Your task to perform on an android device: turn off notifications settings in the gmail app Image 0: 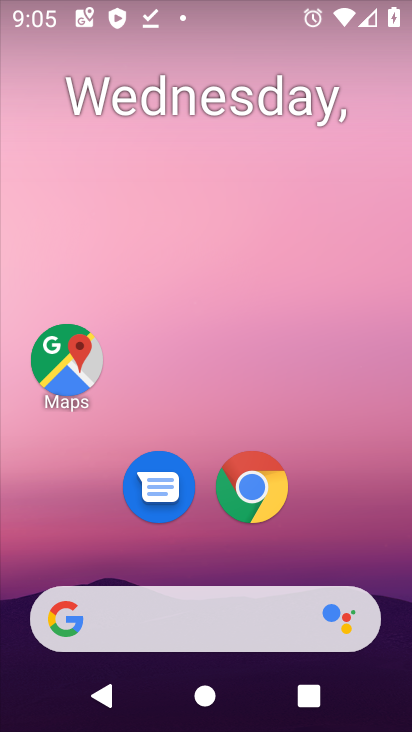
Step 0: drag from (253, 658) to (167, 512)
Your task to perform on an android device: turn off notifications settings in the gmail app Image 1: 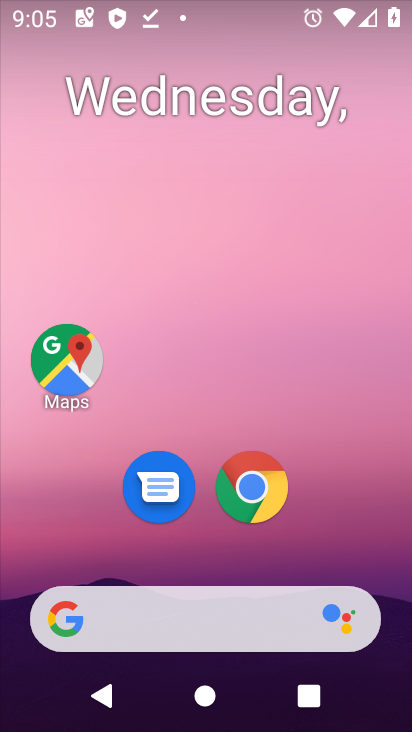
Step 1: drag from (274, 655) to (196, 251)
Your task to perform on an android device: turn off notifications settings in the gmail app Image 2: 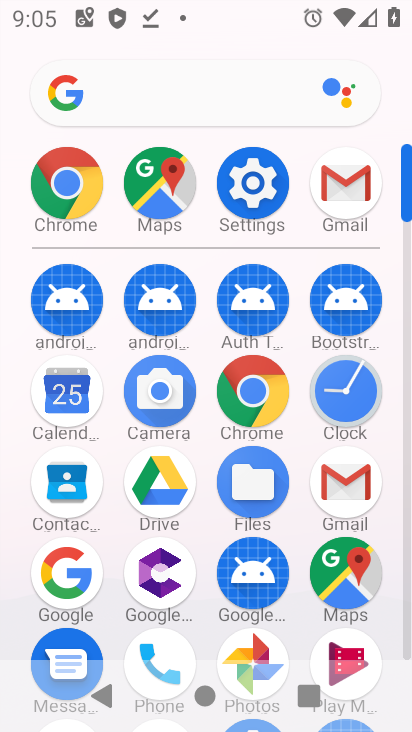
Step 2: drag from (349, 548) to (146, 116)
Your task to perform on an android device: turn off notifications settings in the gmail app Image 3: 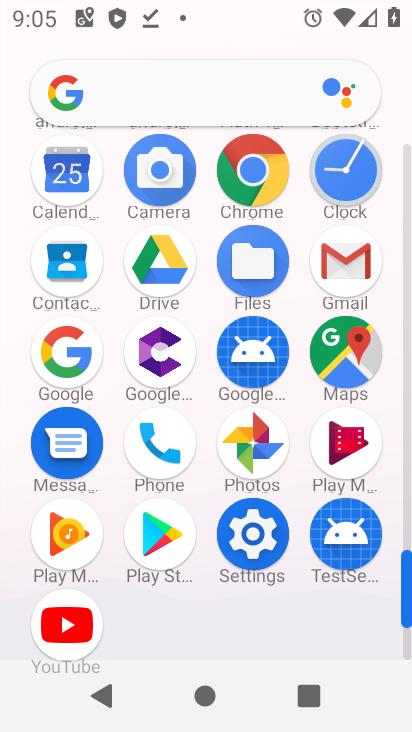
Step 3: click (352, 464)
Your task to perform on an android device: turn off notifications settings in the gmail app Image 4: 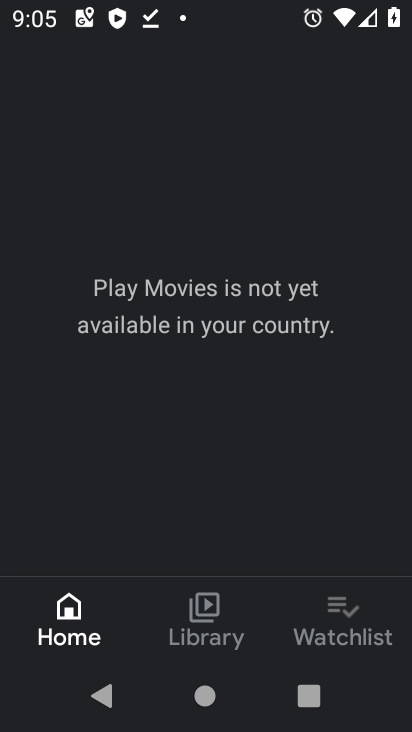
Step 4: press back button
Your task to perform on an android device: turn off notifications settings in the gmail app Image 5: 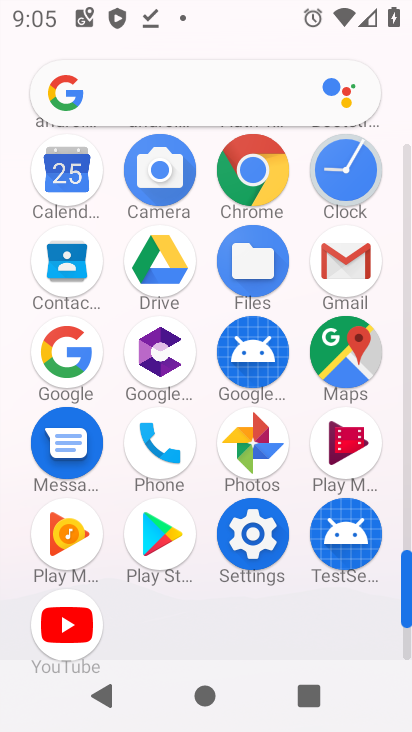
Step 5: click (339, 254)
Your task to perform on an android device: turn off notifications settings in the gmail app Image 6: 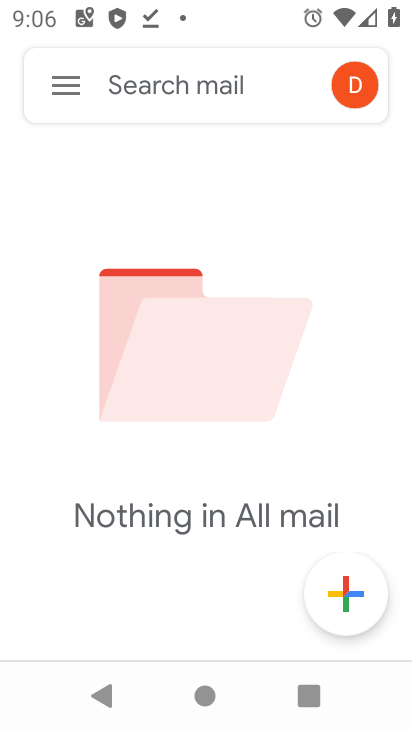
Step 6: click (62, 99)
Your task to perform on an android device: turn off notifications settings in the gmail app Image 7: 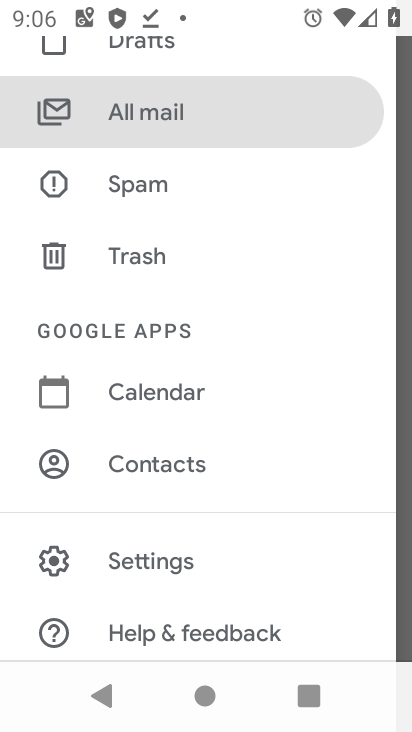
Step 7: click (139, 547)
Your task to perform on an android device: turn off notifications settings in the gmail app Image 8: 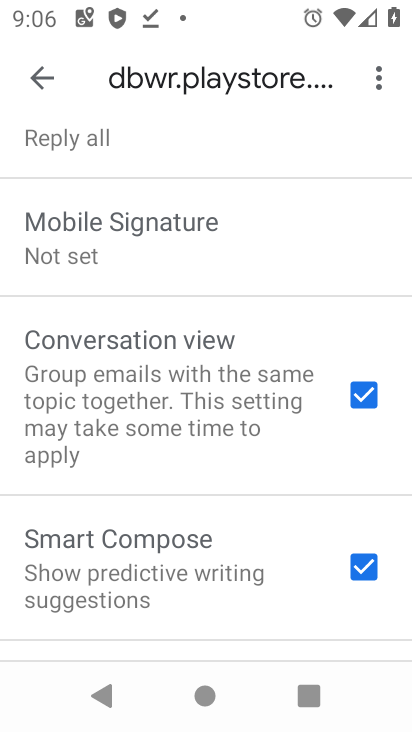
Step 8: drag from (170, 471) to (218, 82)
Your task to perform on an android device: turn off notifications settings in the gmail app Image 9: 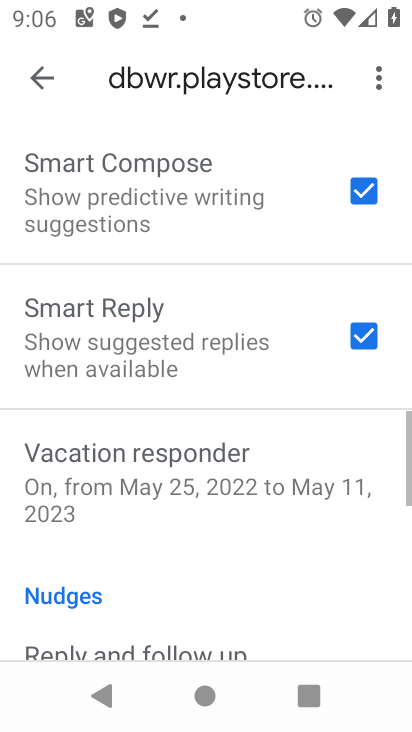
Step 9: drag from (285, 406) to (228, 44)
Your task to perform on an android device: turn off notifications settings in the gmail app Image 10: 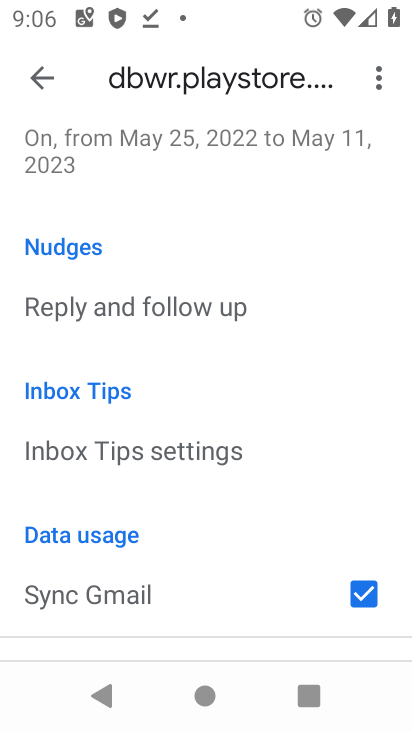
Step 10: drag from (113, 340) to (161, 623)
Your task to perform on an android device: turn off notifications settings in the gmail app Image 11: 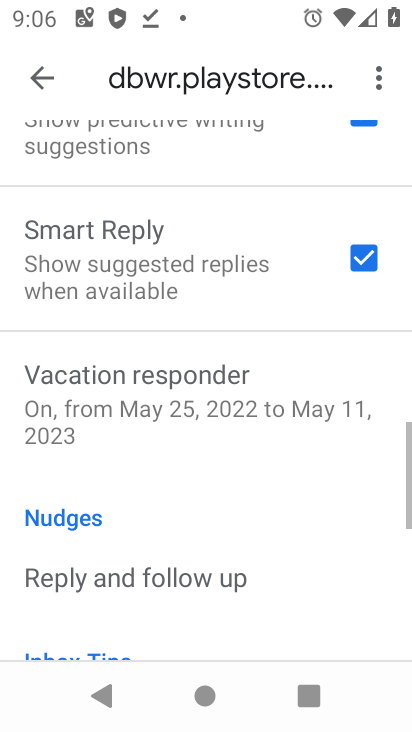
Step 11: drag from (102, 351) to (148, 533)
Your task to perform on an android device: turn off notifications settings in the gmail app Image 12: 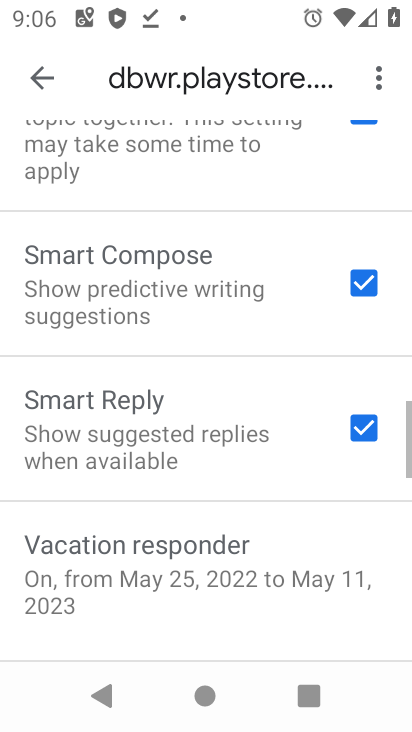
Step 12: drag from (135, 281) to (155, 586)
Your task to perform on an android device: turn off notifications settings in the gmail app Image 13: 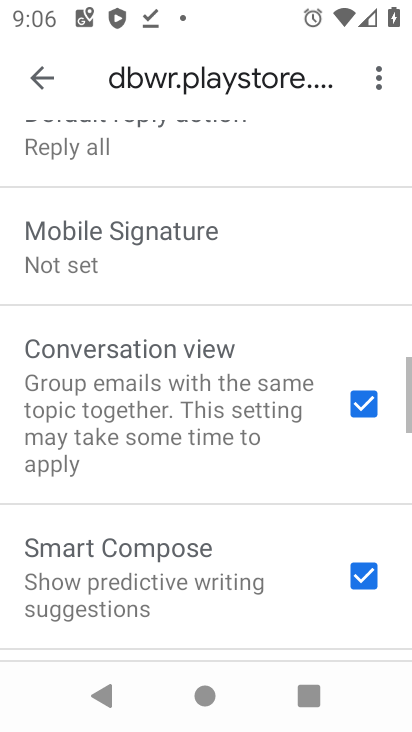
Step 13: drag from (155, 305) to (167, 519)
Your task to perform on an android device: turn off notifications settings in the gmail app Image 14: 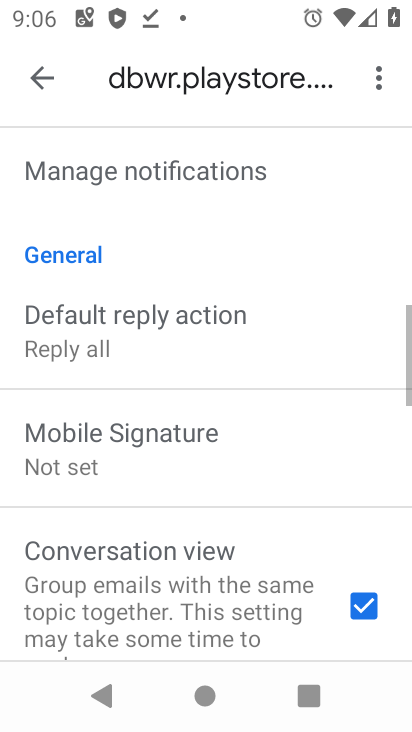
Step 14: drag from (152, 392) to (208, 597)
Your task to perform on an android device: turn off notifications settings in the gmail app Image 15: 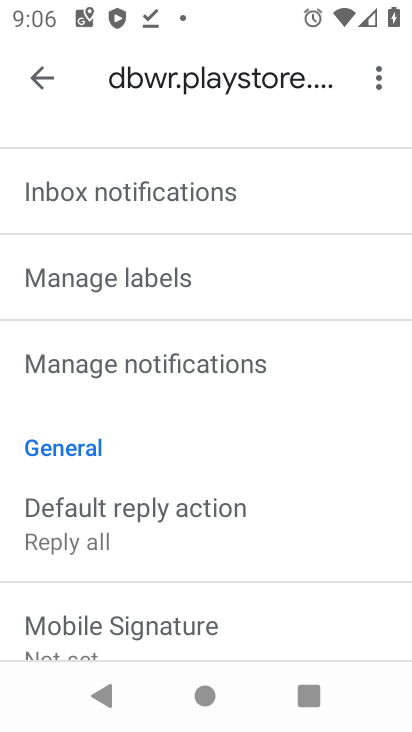
Step 15: drag from (133, 328) to (113, 520)
Your task to perform on an android device: turn off notifications settings in the gmail app Image 16: 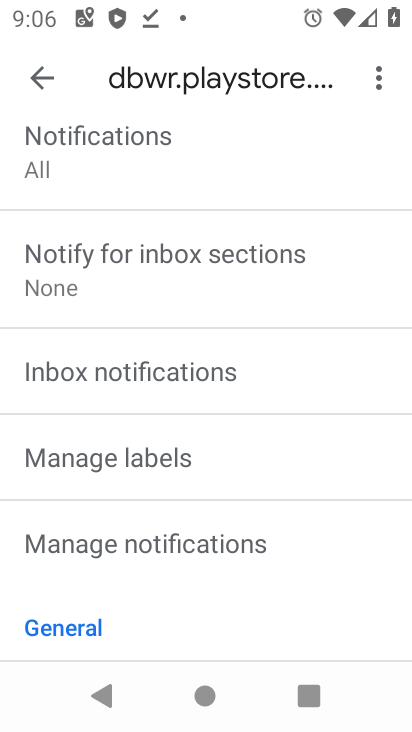
Step 16: click (66, 143)
Your task to perform on an android device: turn off notifications settings in the gmail app Image 17: 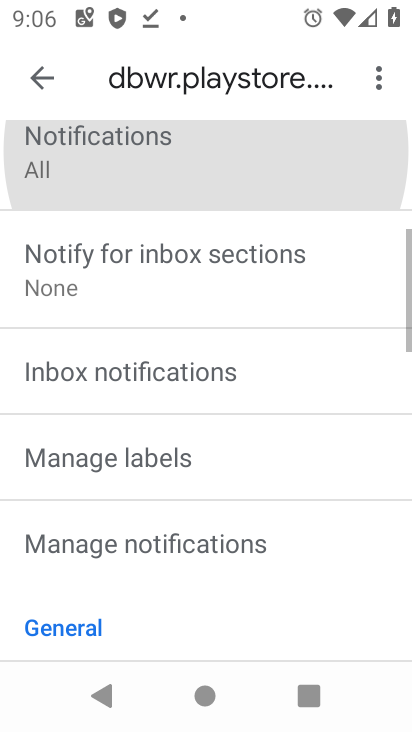
Step 17: click (67, 143)
Your task to perform on an android device: turn off notifications settings in the gmail app Image 18: 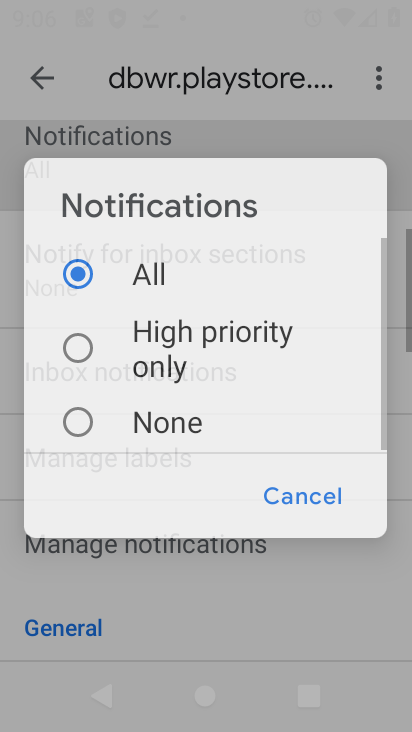
Step 18: click (68, 141)
Your task to perform on an android device: turn off notifications settings in the gmail app Image 19: 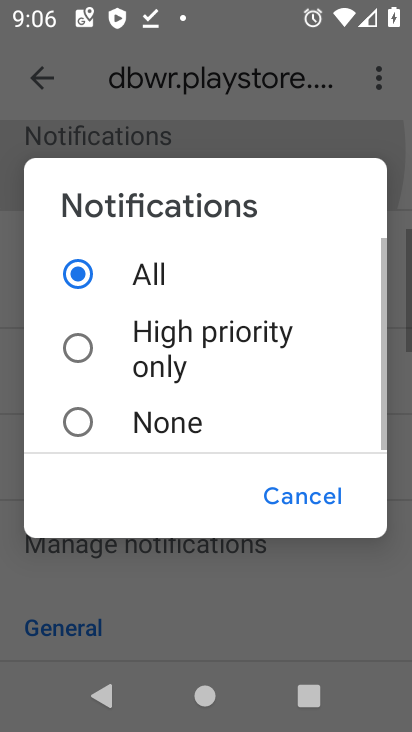
Step 19: click (68, 141)
Your task to perform on an android device: turn off notifications settings in the gmail app Image 20: 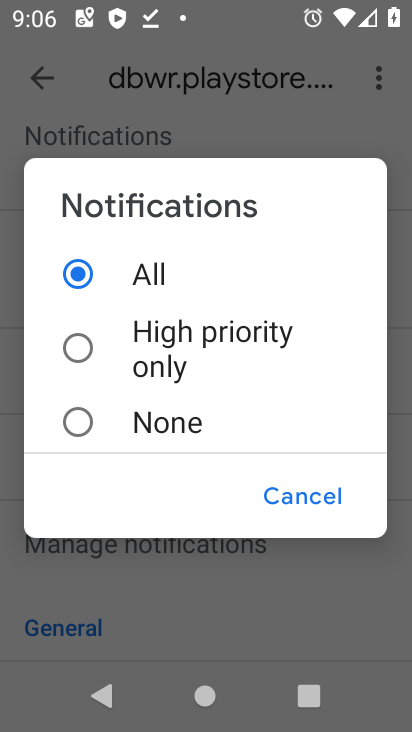
Step 20: click (72, 417)
Your task to perform on an android device: turn off notifications settings in the gmail app Image 21: 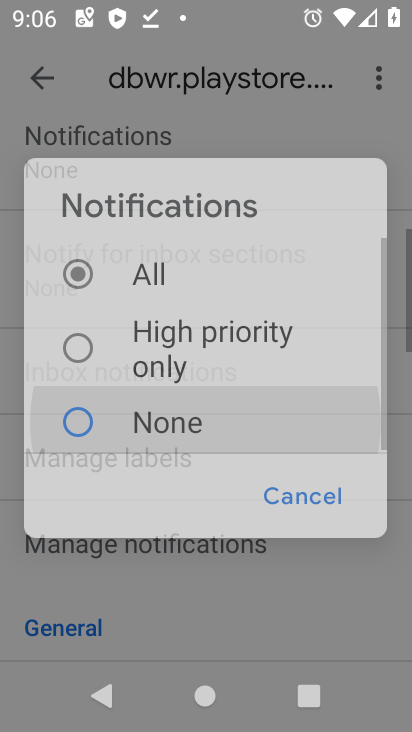
Step 21: click (73, 416)
Your task to perform on an android device: turn off notifications settings in the gmail app Image 22: 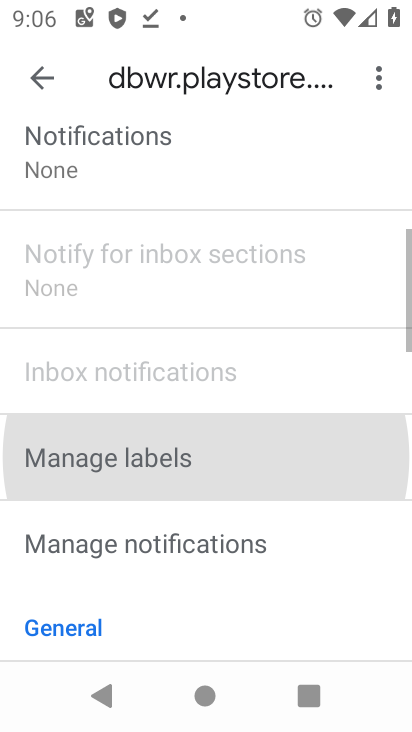
Step 22: click (73, 416)
Your task to perform on an android device: turn off notifications settings in the gmail app Image 23: 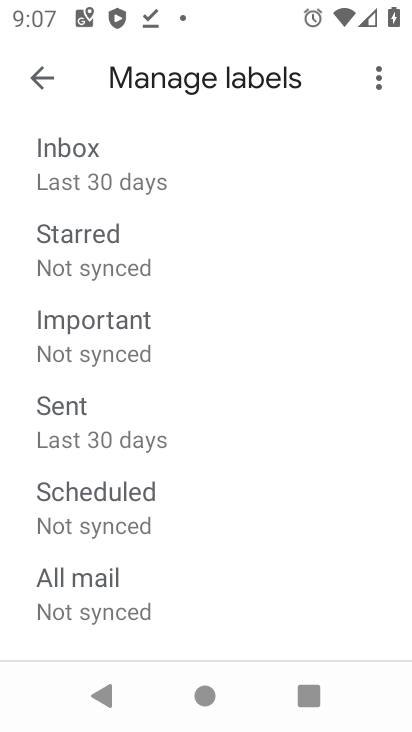
Step 23: click (35, 79)
Your task to perform on an android device: turn off notifications settings in the gmail app Image 24: 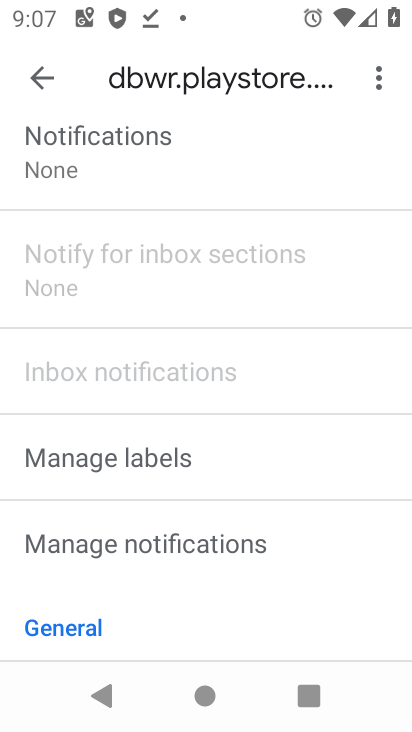
Step 24: click (56, 152)
Your task to perform on an android device: turn off notifications settings in the gmail app Image 25: 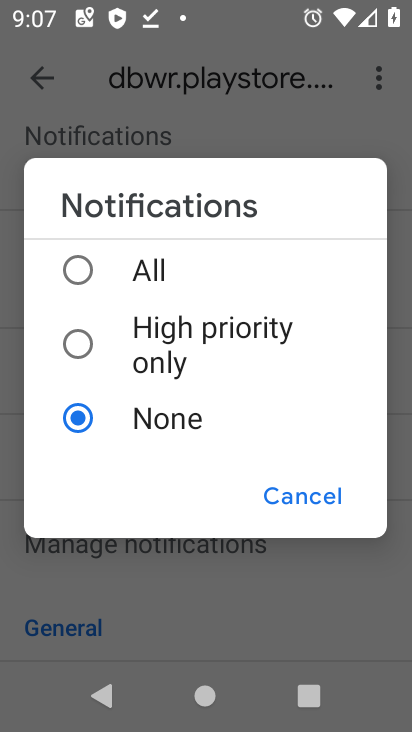
Step 25: click (313, 486)
Your task to perform on an android device: turn off notifications settings in the gmail app Image 26: 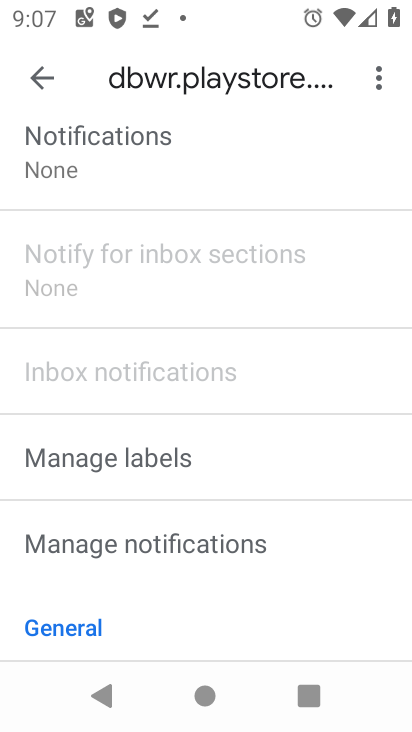
Step 26: task complete